Your task to perform on an android device: What's the weather going to be tomorrow? Image 0: 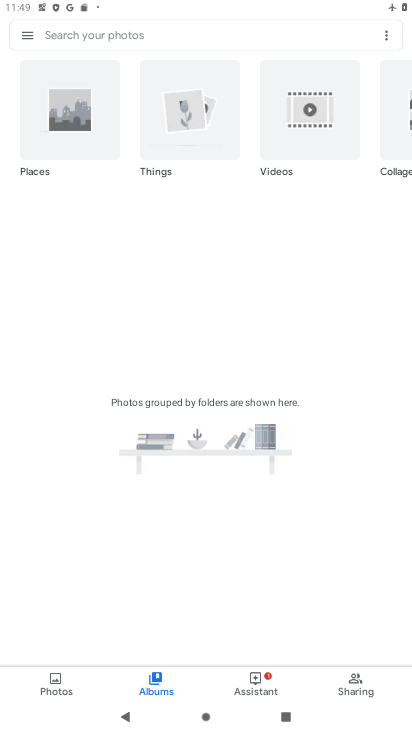
Step 0: press home button
Your task to perform on an android device: What's the weather going to be tomorrow? Image 1: 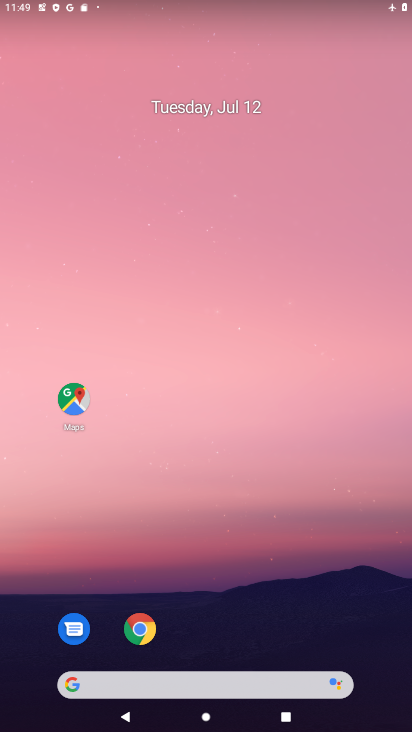
Step 1: drag from (177, 621) to (218, 318)
Your task to perform on an android device: What's the weather going to be tomorrow? Image 2: 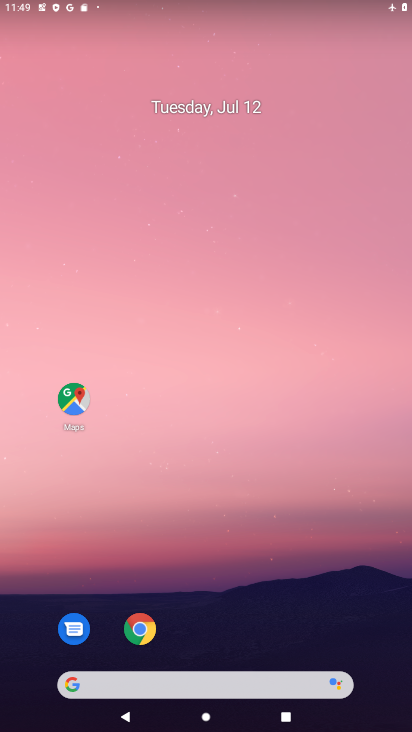
Step 2: click (145, 623)
Your task to perform on an android device: What's the weather going to be tomorrow? Image 3: 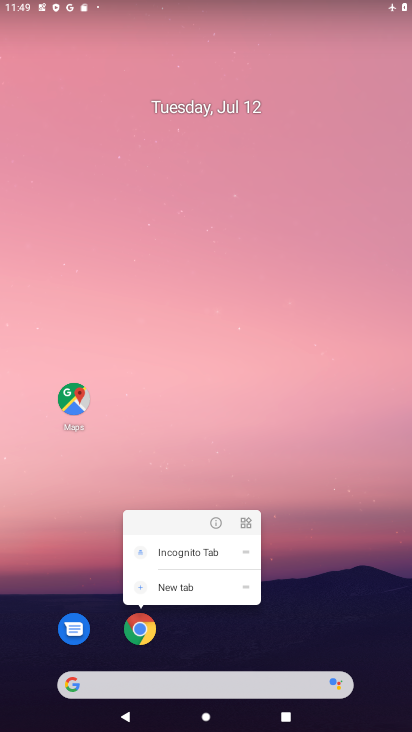
Step 3: click (138, 627)
Your task to perform on an android device: What's the weather going to be tomorrow? Image 4: 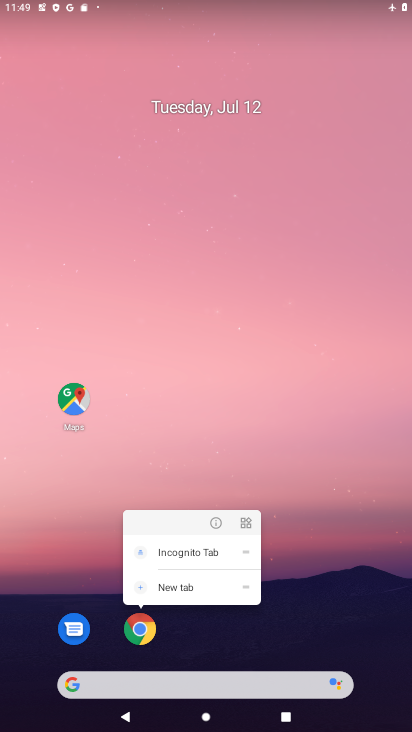
Step 4: click (138, 627)
Your task to perform on an android device: What's the weather going to be tomorrow? Image 5: 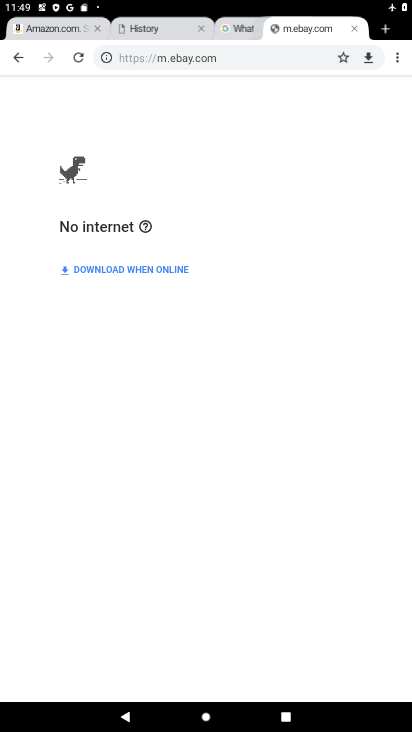
Step 5: click (400, 54)
Your task to perform on an android device: What's the weather going to be tomorrow? Image 6: 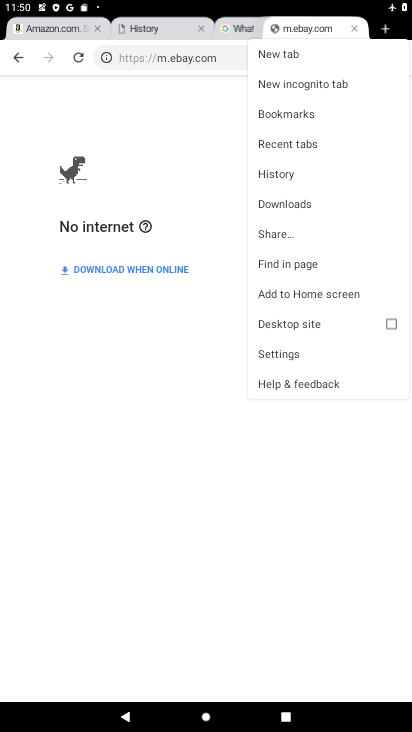
Step 6: click (301, 44)
Your task to perform on an android device: What's the weather going to be tomorrow? Image 7: 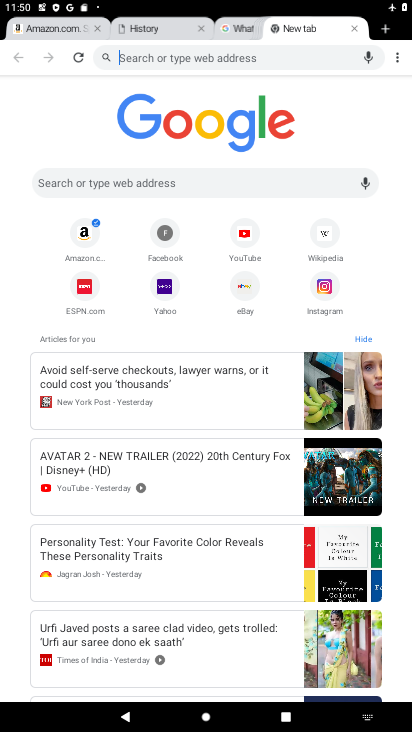
Step 7: click (152, 173)
Your task to perform on an android device: What's the weather going to be tomorrow? Image 8: 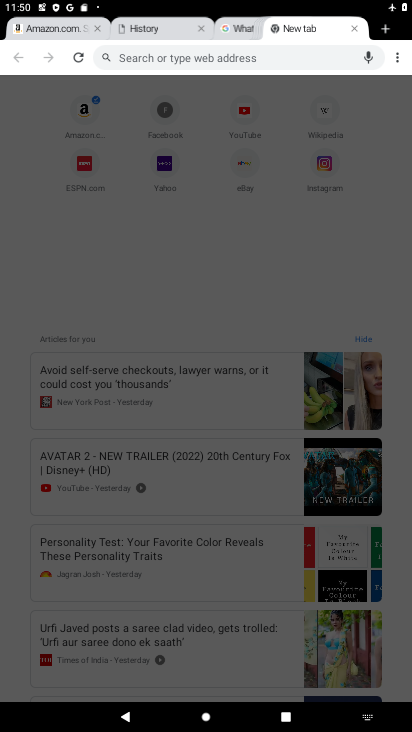
Step 8: type "What's the weather going to be tomorrow "
Your task to perform on an android device: What's the weather going to be tomorrow? Image 9: 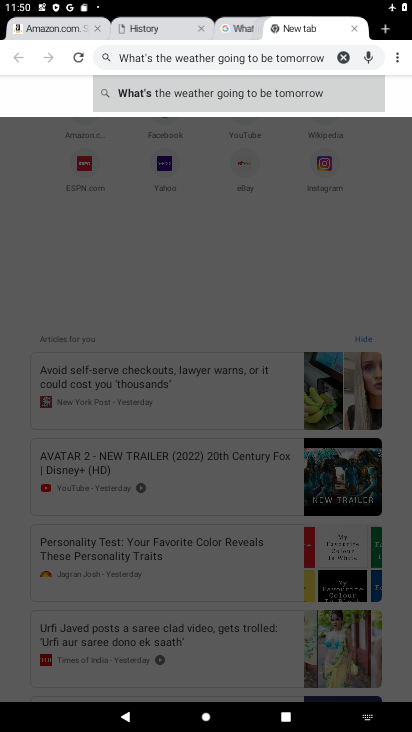
Step 9: click (218, 95)
Your task to perform on an android device: What's the weather going to be tomorrow? Image 10: 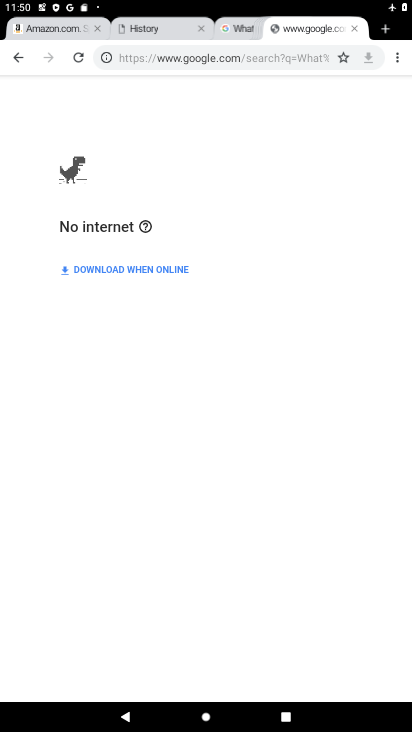
Step 10: task complete